Your task to perform on an android device: clear history in the chrome app Image 0: 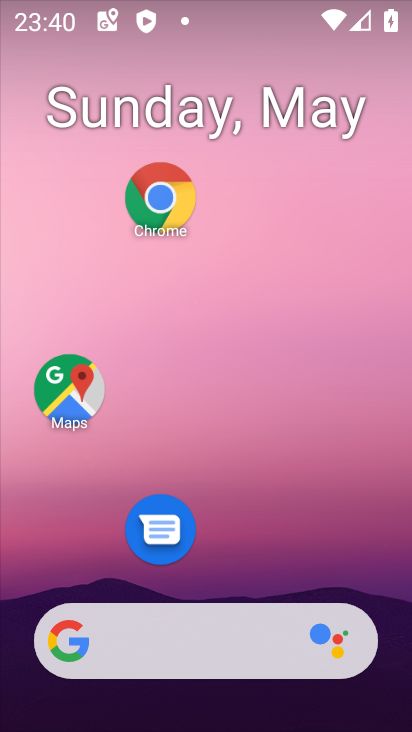
Step 0: click (175, 202)
Your task to perform on an android device: clear history in the chrome app Image 1: 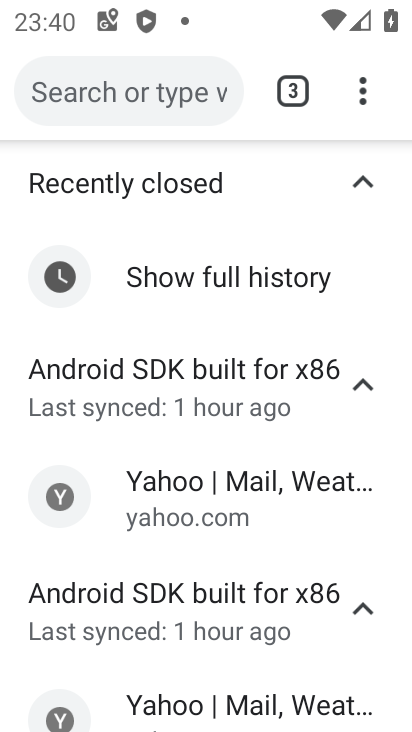
Step 1: click (360, 93)
Your task to perform on an android device: clear history in the chrome app Image 2: 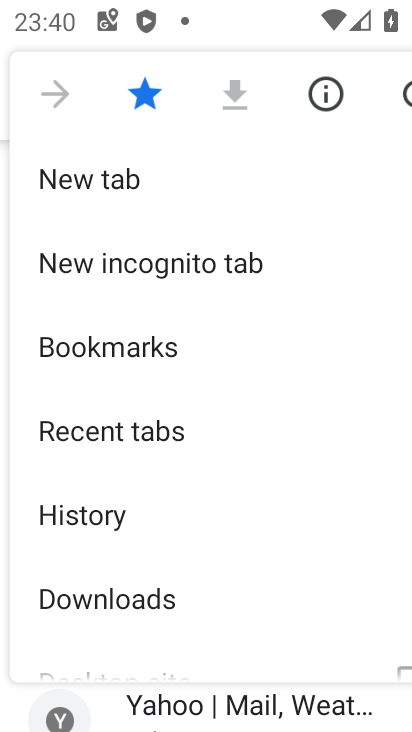
Step 2: click (108, 502)
Your task to perform on an android device: clear history in the chrome app Image 3: 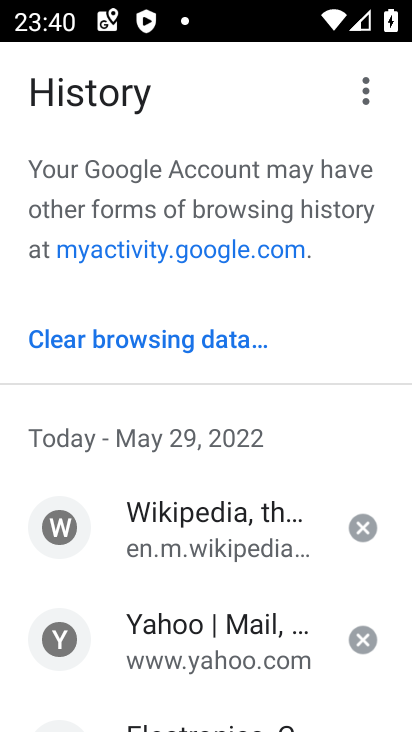
Step 3: click (225, 336)
Your task to perform on an android device: clear history in the chrome app Image 4: 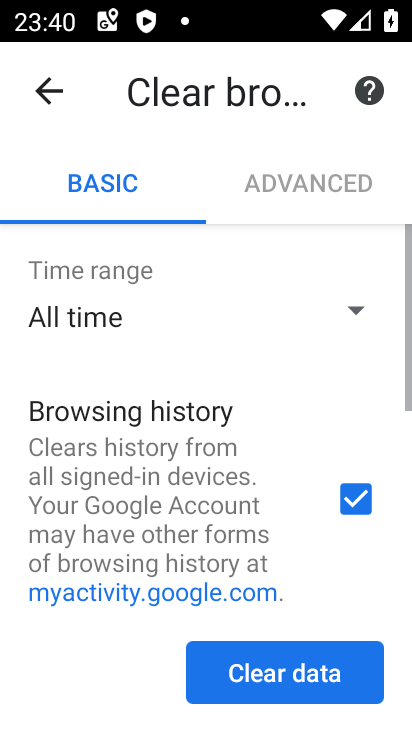
Step 4: click (327, 664)
Your task to perform on an android device: clear history in the chrome app Image 5: 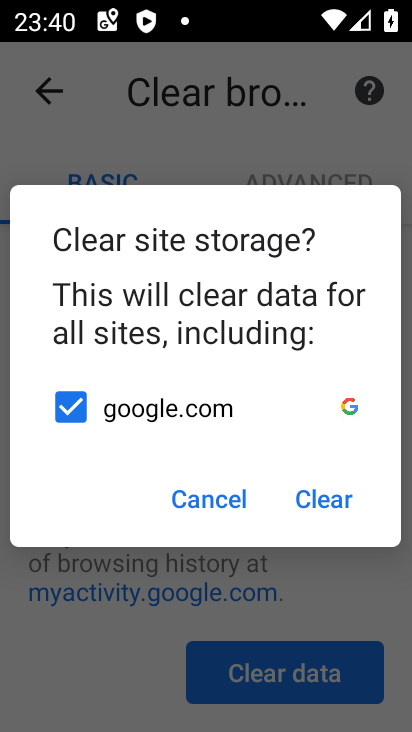
Step 5: task complete